Your task to perform on an android device: Go to privacy settings Image 0: 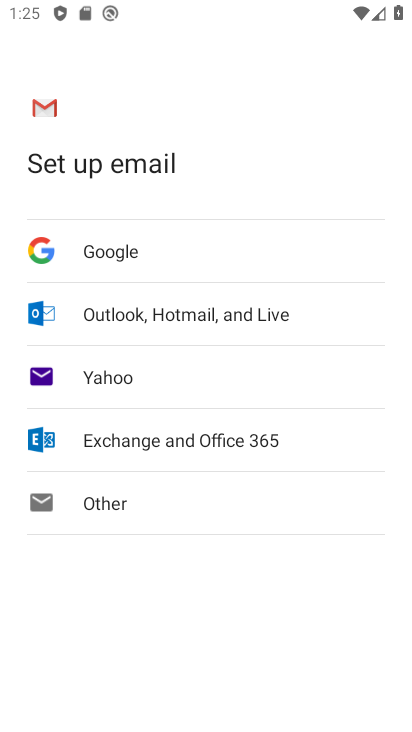
Step 0: drag from (215, 634) to (198, 105)
Your task to perform on an android device: Go to privacy settings Image 1: 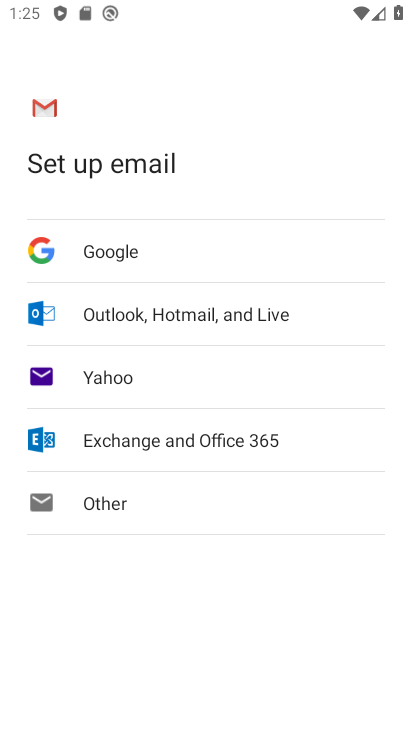
Step 1: press home button
Your task to perform on an android device: Go to privacy settings Image 2: 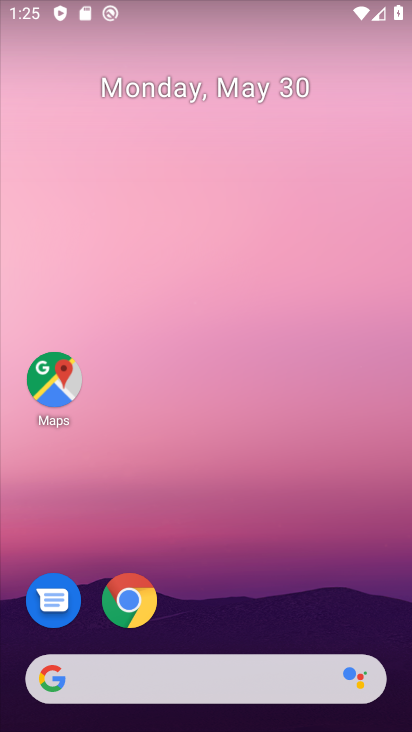
Step 2: drag from (213, 653) to (157, 47)
Your task to perform on an android device: Go to privacy settings Image 3: 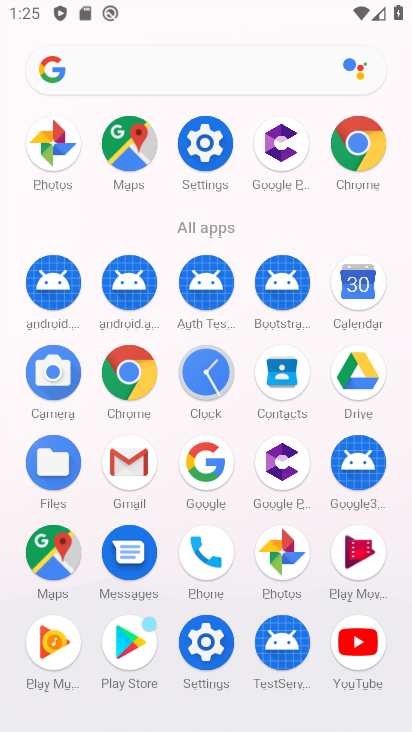
Step 3: click (208, 654)
Your task to perform on an android device: Go to privacy settings Image 4: 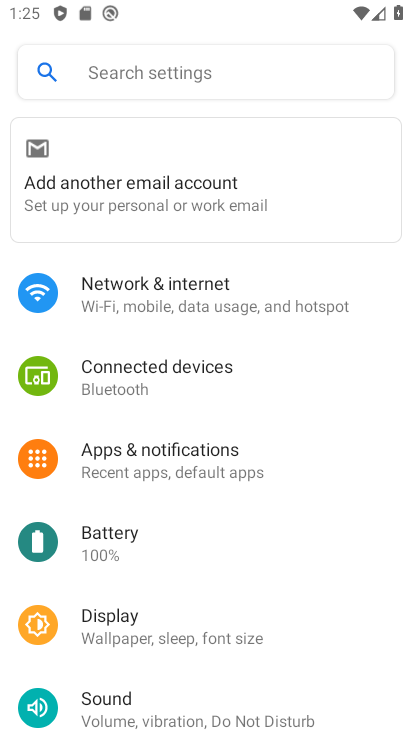
Step 4: drag from (155, 671) to (152, 280)
Your task to perform on an android device: Go to privacy settings Image 5: 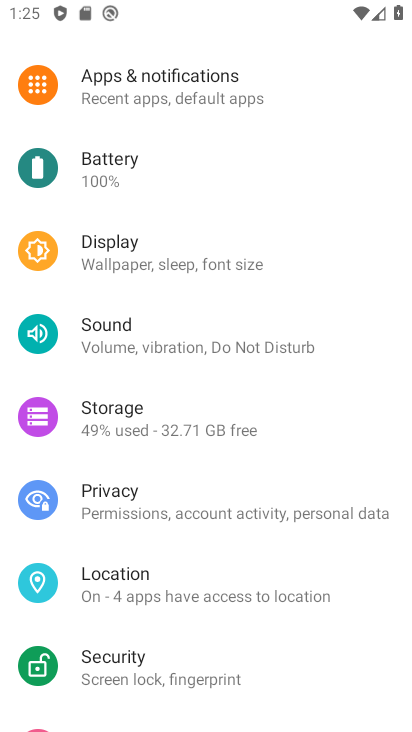
Step 5: click (111, 485)
Your task to perform on an android device: Go to privacy settings Image 6: 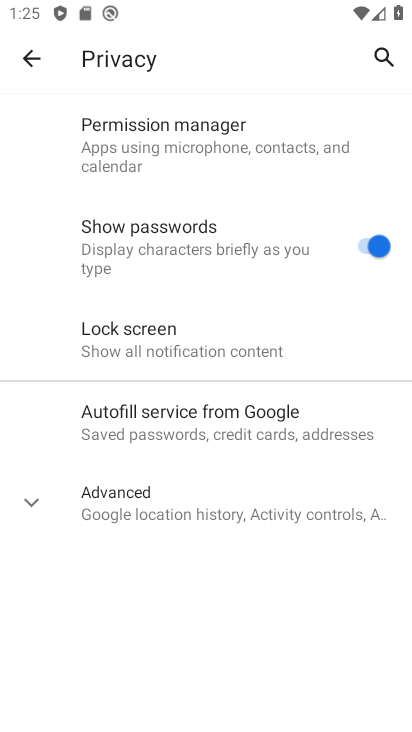
Step 6: task complete